Your task to perform on an android device: turn off translation in the chrome app Image 0: 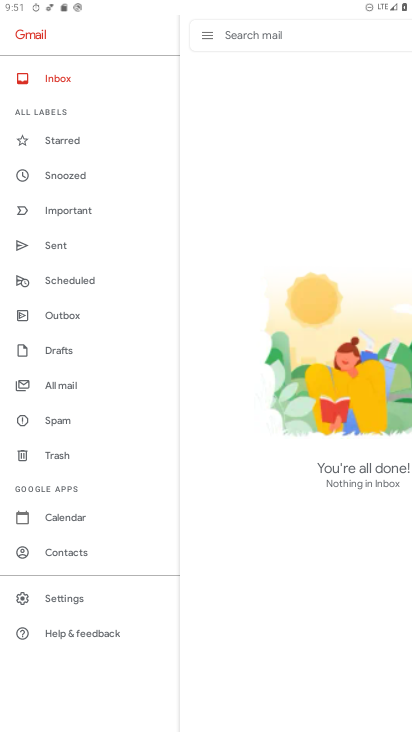
Step 0: click (73, 595)
Your task to perform on an android device: turn off translation in the chrome app Image 1: 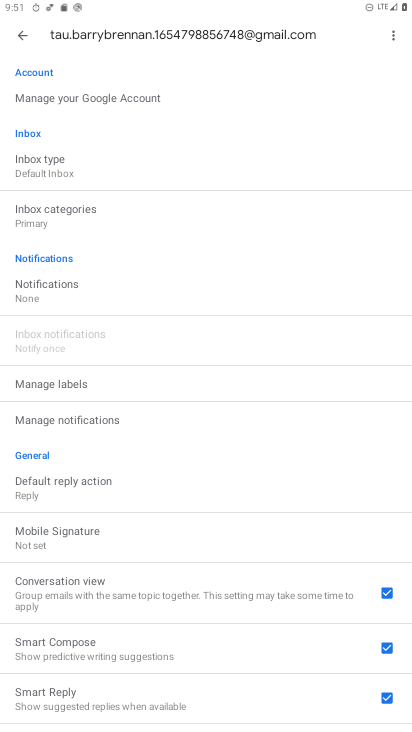
Step 1: press home button
Your task to perform on an android device: turn off translation in the chrome app Image 2: 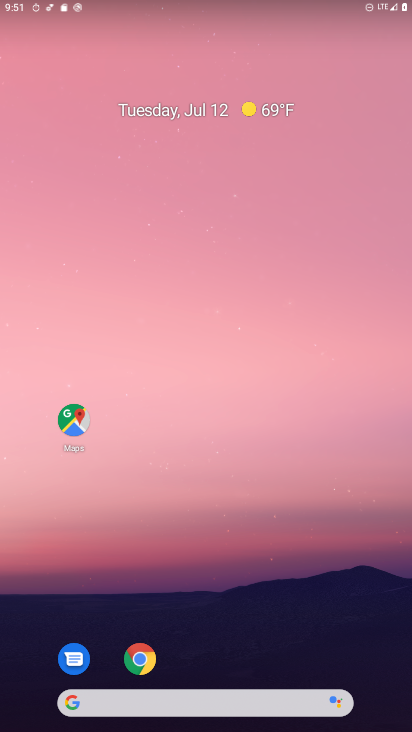
Step 2: click (137, 656)
Your task to perform on an android device: turn off translation in the chrome app Image 3: 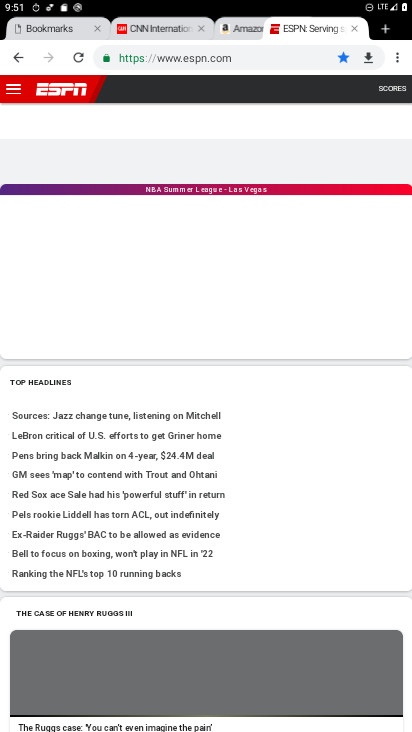
Step 3: click (397, 60)
Your task to perform on an android device: turn off translation in the chrome app Image 4: 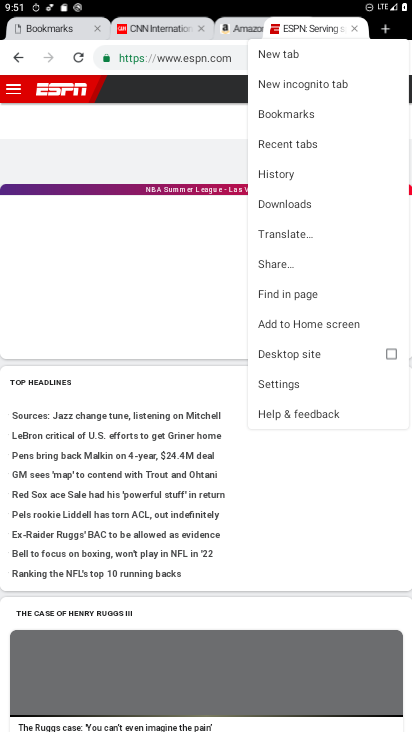
Step 4: click (274, 378)
Your task to perform on an android device: turn off translation in the chrome app Image 5: 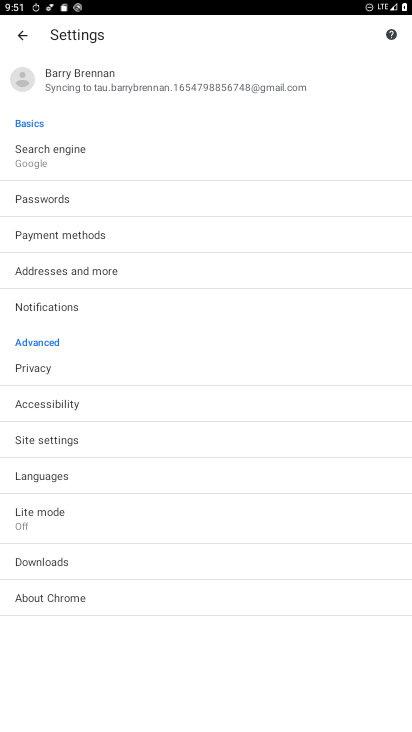
Step 5: click (43, 478)
Your task to perform on an android device: turn off translation in the chrome app Image 6: 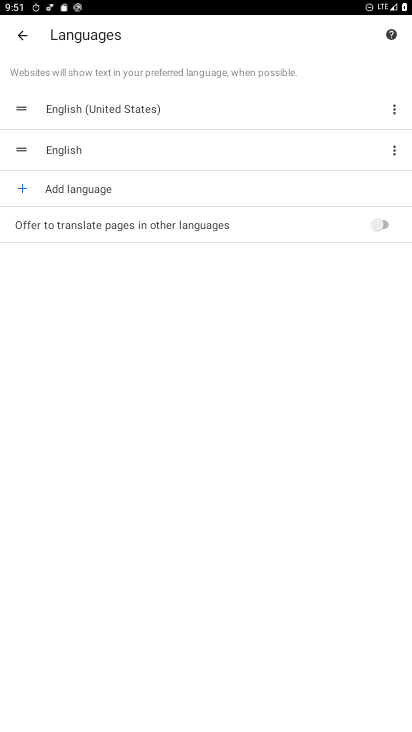
Step 6: task complete